Your task to perform on an android device: allow notifications from all sites in the chrome app Image 0: 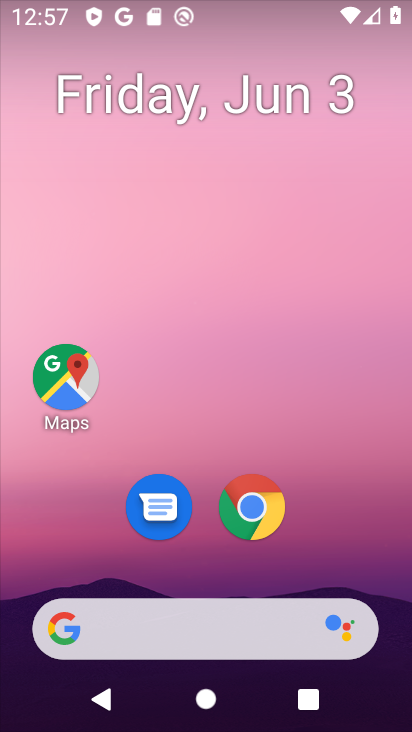
Step 0: drag from (332, 544) to (344, 184)
Your task to perform on an android device: allow notifications from all sites in the chrome app Image 1: 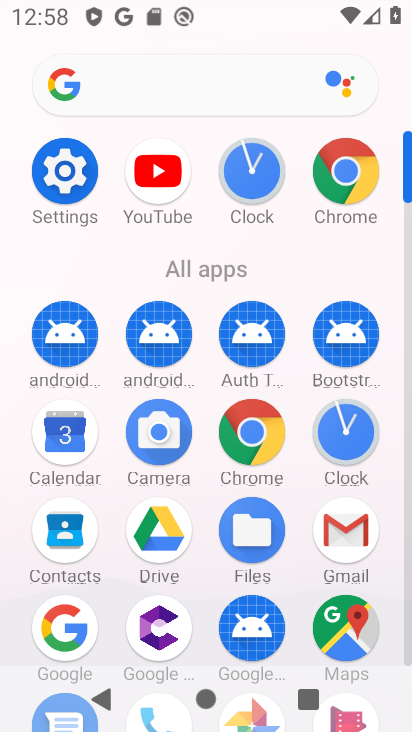
Step 1: click (264, 425)
Your task to perform on an android device: allow notifications from all sites in the chrome app Image 2: 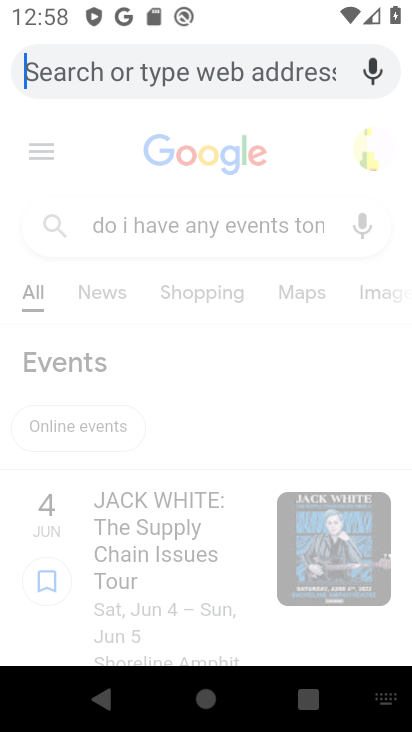
Step 2: press back button
Your task to perform on an android device: allow notifications from all sites in the chrome app Image 3: 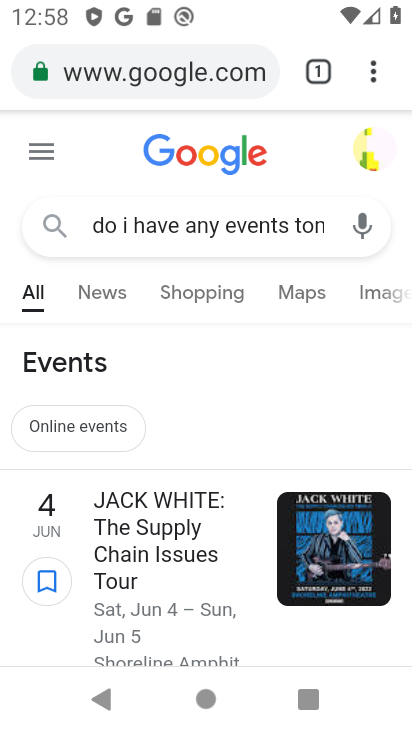
Step 3: drag from (379, 71) to (228, 502)
Your task to perform on an android device: allow notifications from all sites in the chrome app Image 4: 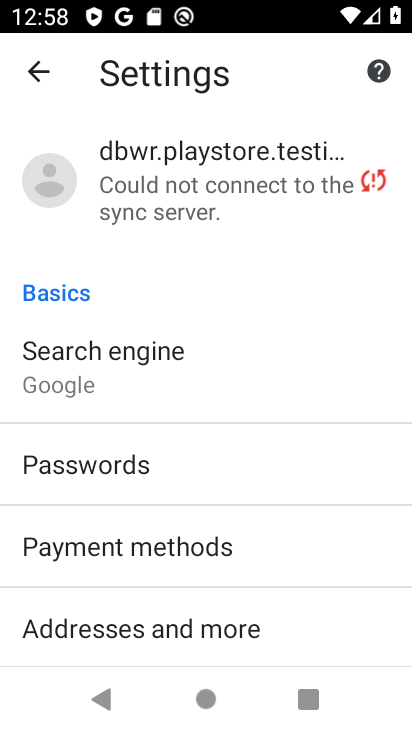
Step 4: drag from (300, 625) to (317, 337)
Your task to perform on an android device: allow notifications from all sites in the chrome app Image 5: 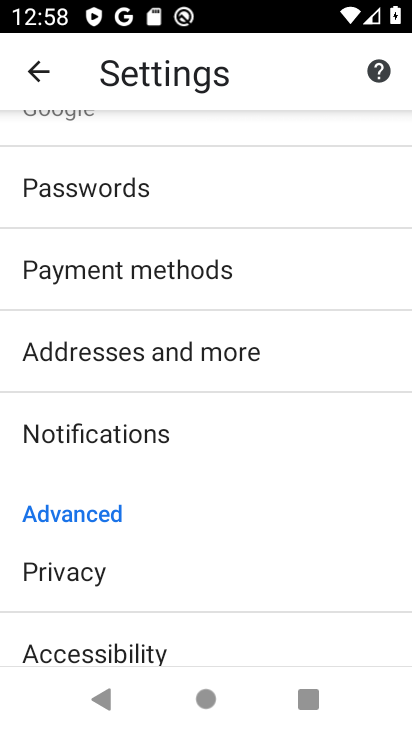
Step 5: drag from (264, 606) to (342, 267)
Your task to perform on an android device: allow notifications from all sites in the chrome app Image 6: 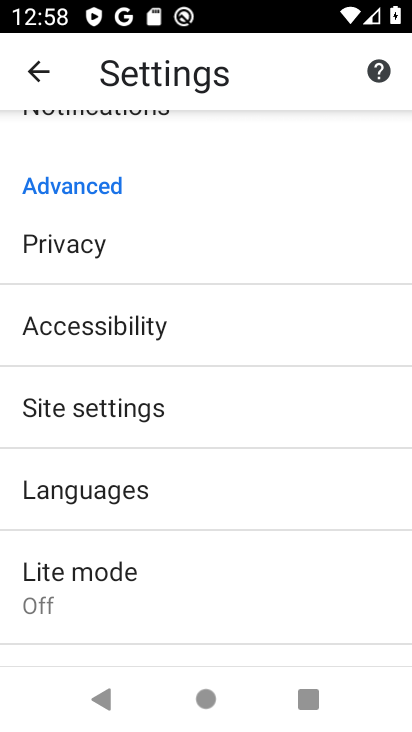
Step 6: click (240, 420)
Your task to perform on an android device: allow notifications from all sites in the chrome app Image 7: 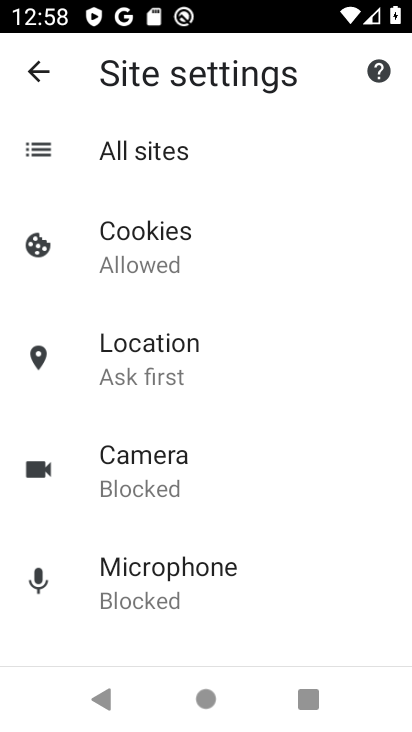
Step 7: task complete